Your task to perform on an android device: Open accessibility settings Image 0: 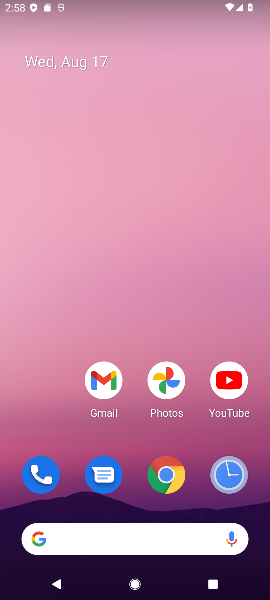
Step 0: drag from (139, 497) to (155, 71)
Your task to perform on an android device: Open accessibility settings Image 1: 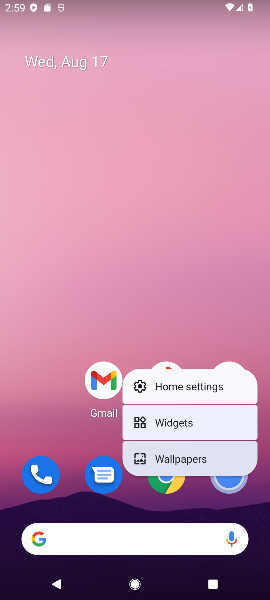
Step 1: click (105, 244)
Your task to perform on an android device: Open accessibility settings Image 2: 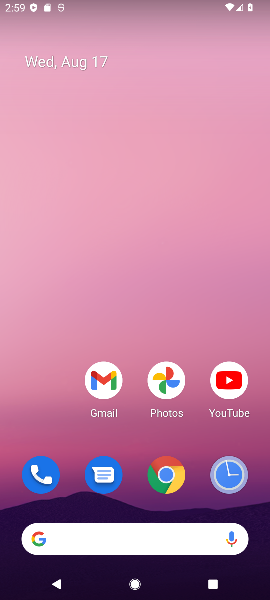
Step 2: drag from (132, 517) to (110, 72)
Your task to perform on an android device: Open accessibility settings Image 3: 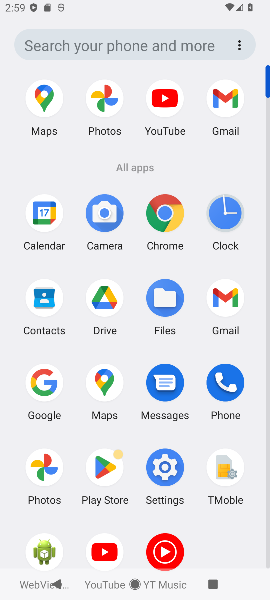
Step 3: click (177, 472)
Your task to perform on an android device: Open accessibility settings Image 4: 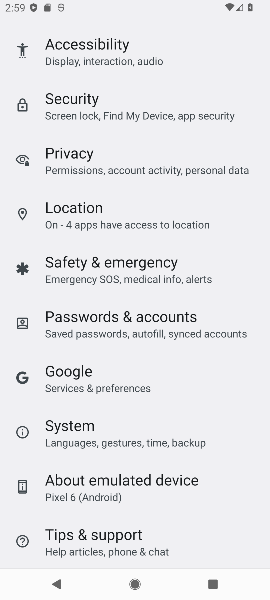
Step 4: click (56, 69)
Your task to perform on an android device: Open accessibility settings Image 5: 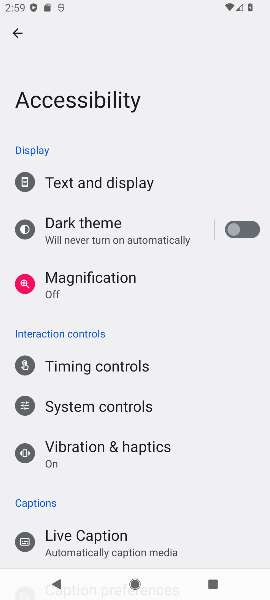
Step 5: task complete